Your task to perform on an android device: Open location settings Image 0: 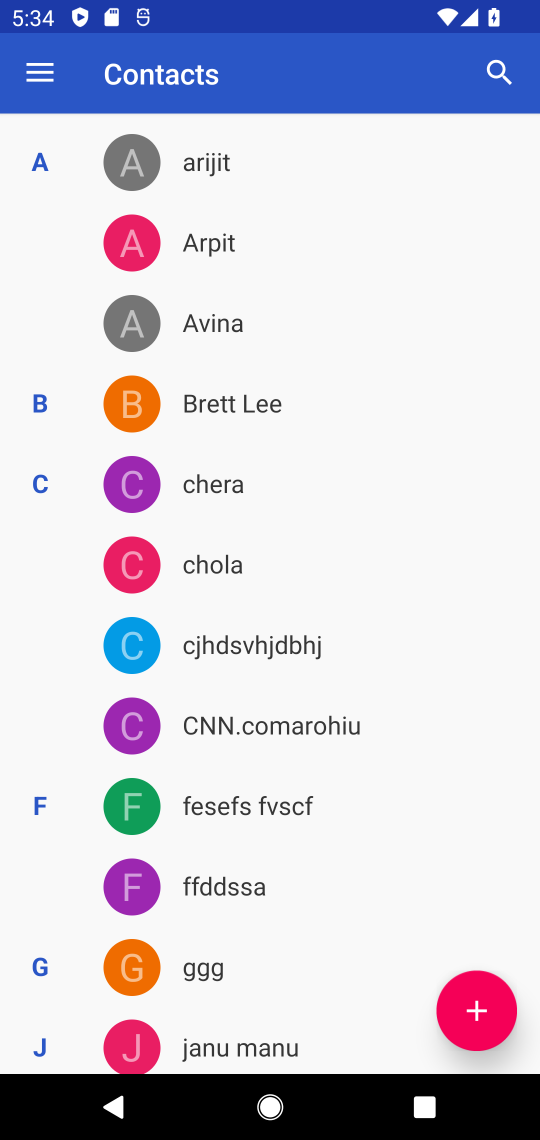
Step 0: press back button
Your task to perform on an android device: Open location settings Image 1: 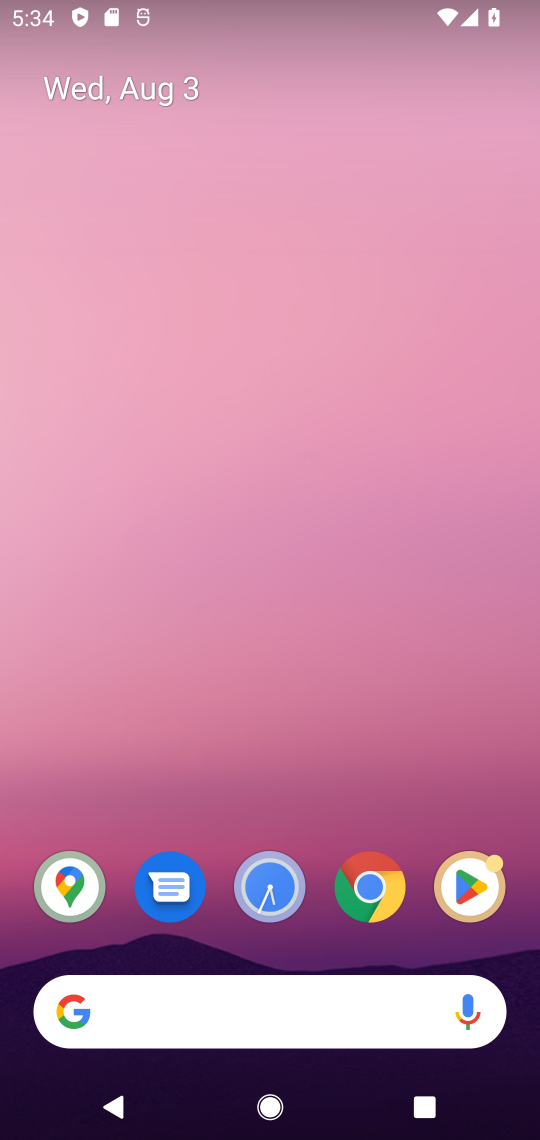
Step 1: drag from (293, 962) to (206, 37)
Your task to perform on an android device: Open location settings Image 2: 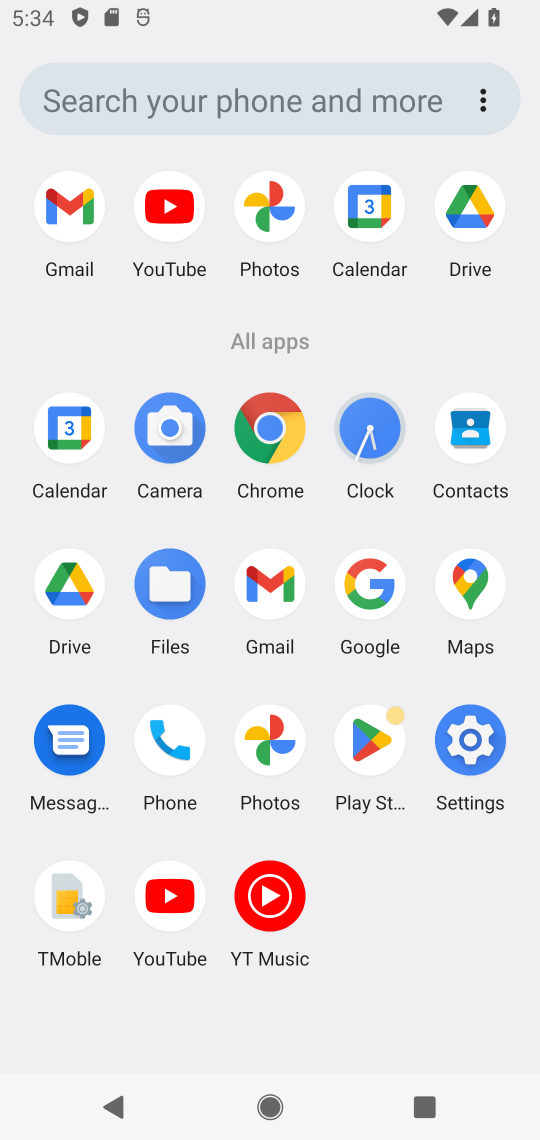
Step 2: click (476, 753)
Your task to perform on an android device: Open location settings Image 3: 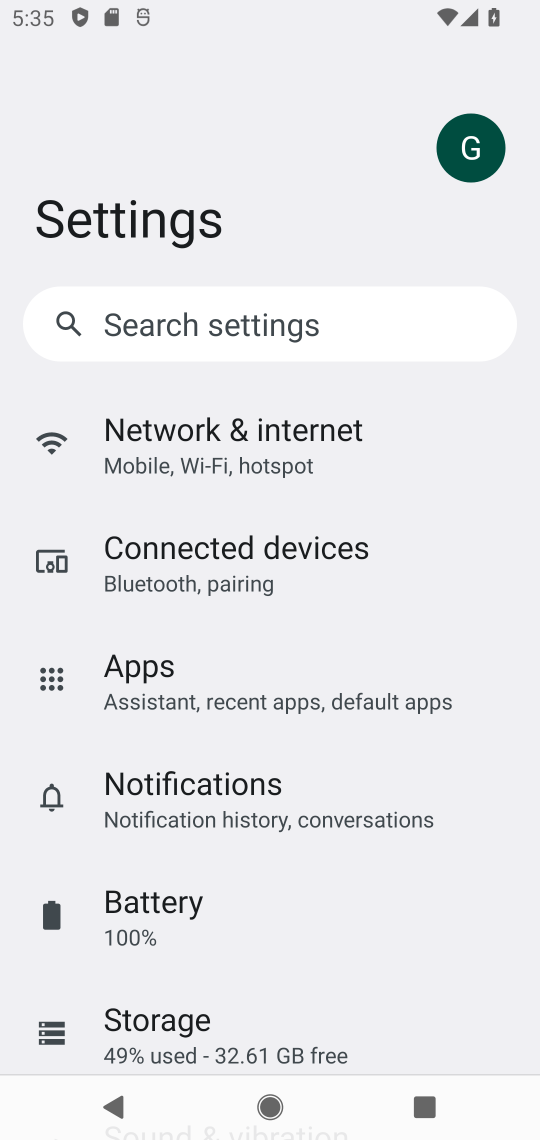
Step 3: drag from (276, 811) to (247, 217)
Your task to perform on an android device: Open location settings Image 4: 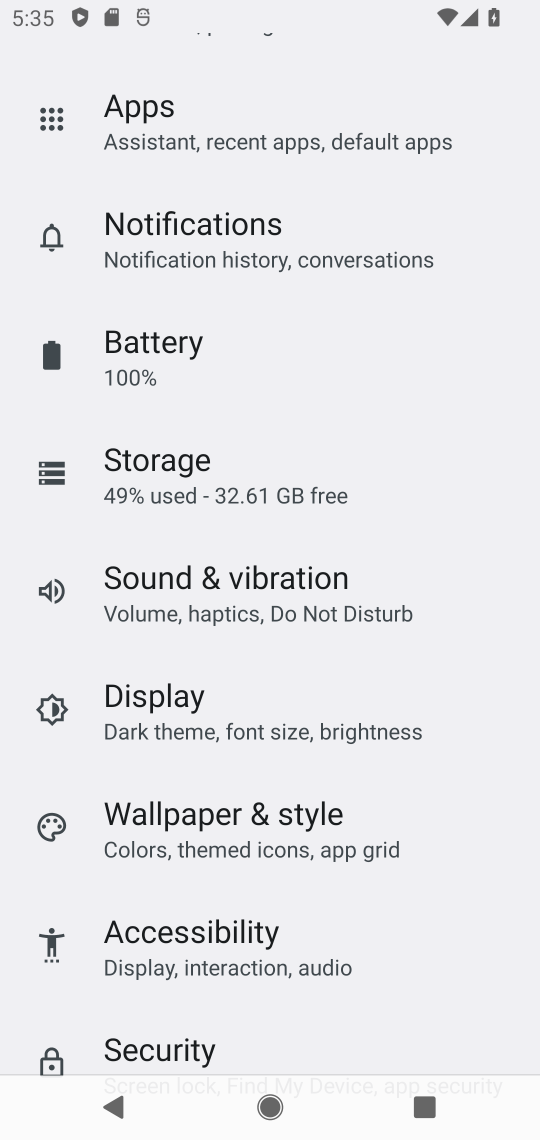
Step 4: drag from (257, 899) to (232, 273)
Your task to perform on an android device: Open location settings Image 5: 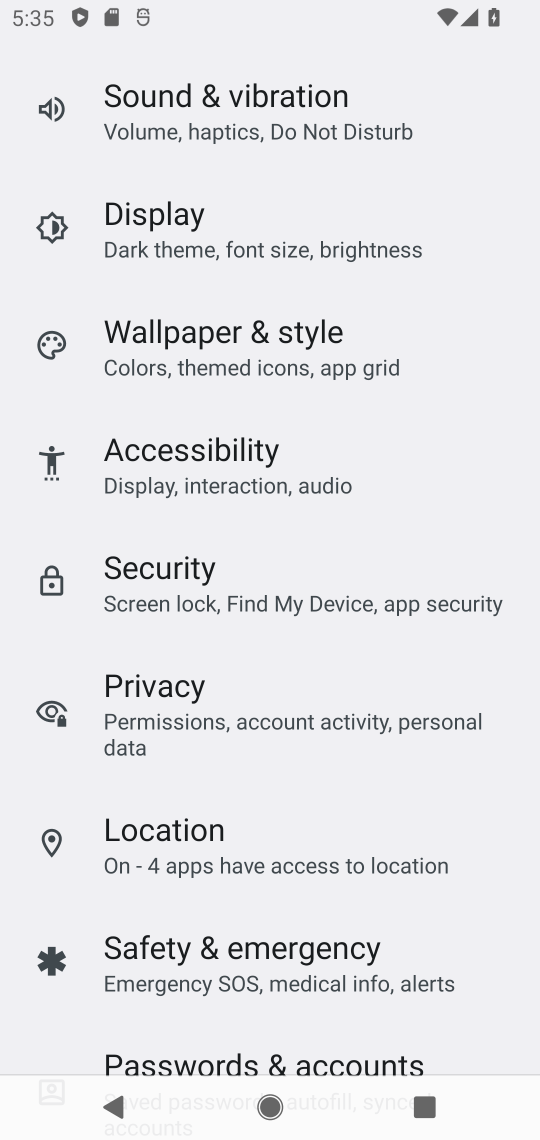
Step 5: click (157, 829)
Your task to perform on an android device: Open location settings Image 6: 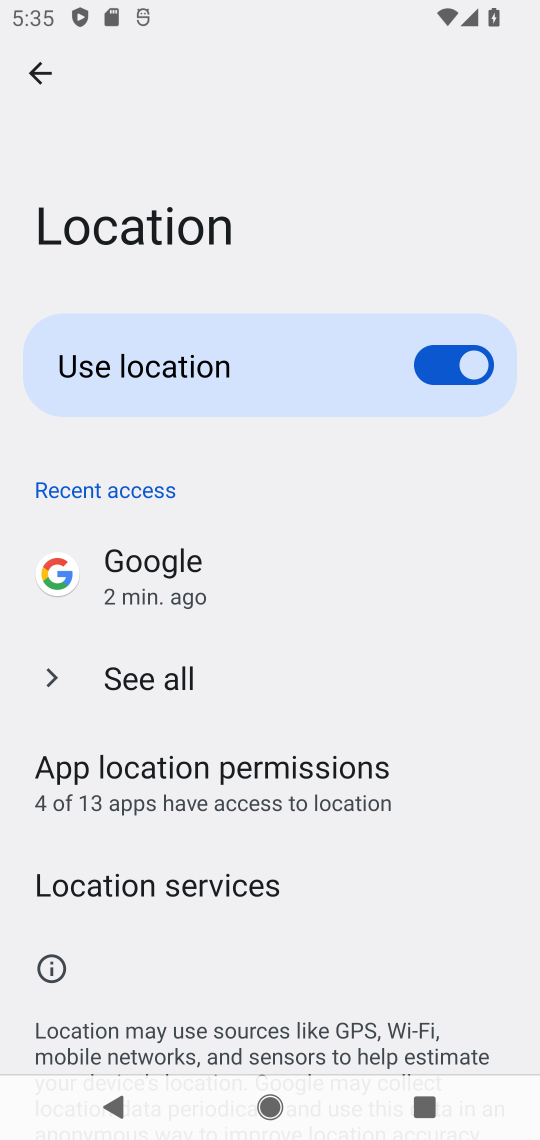
Step 6: task complete